Your task to perform on an android device: check battery use Image 0: 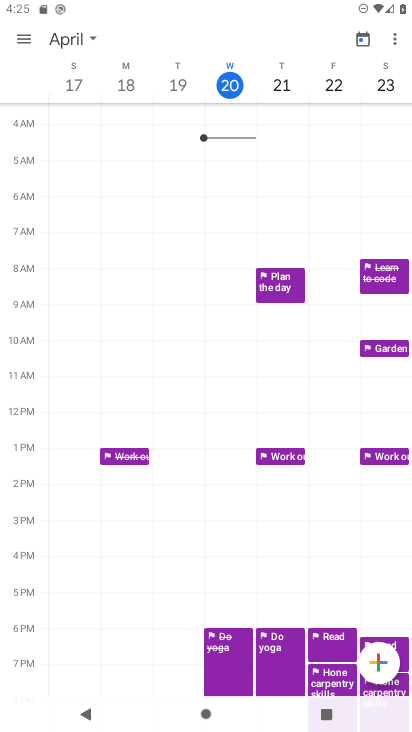
Step 0: drag from (229, 502) to (271, 238)
Your task to perform on an android device: check battery use Image 1: 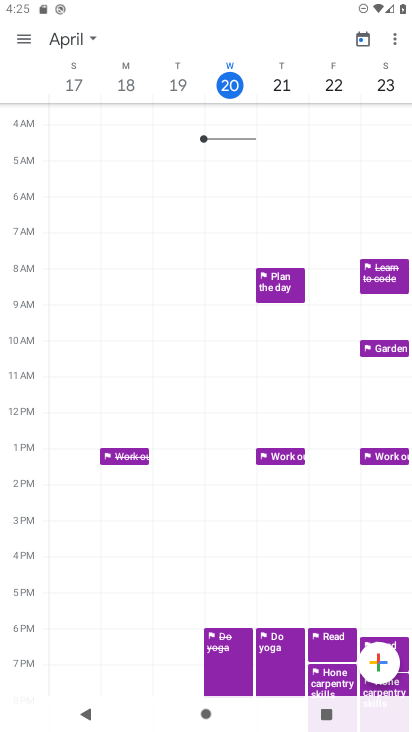
Step 1: press home button
Your task to perform on an android device: check battery use Image 2: 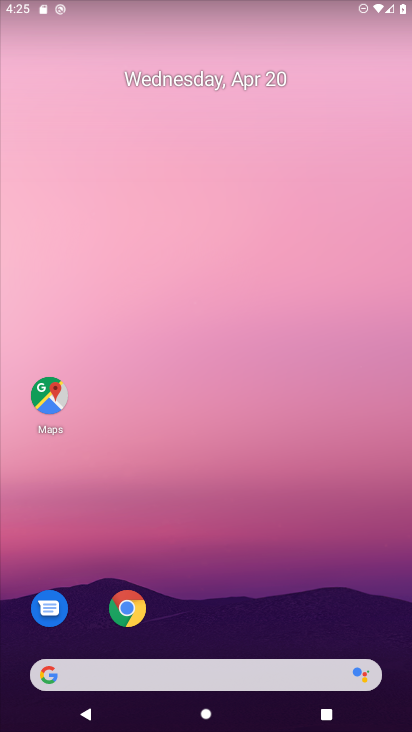
Step 2: drag from (281, 552) to (278, 65)
Your task to perform on an android device: check battery use Image 3: 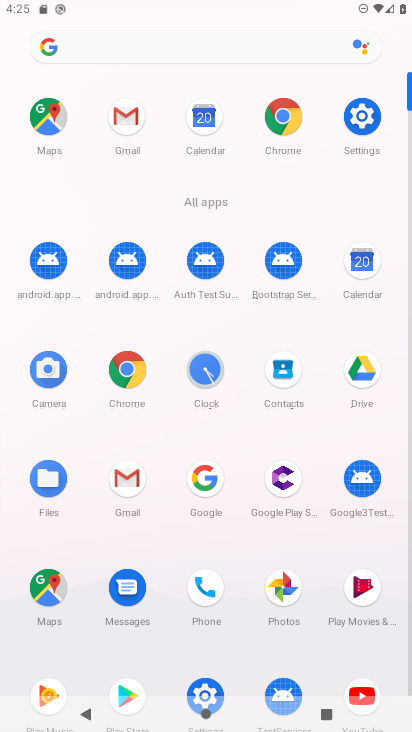
Step 3: click (353, 123)
Your task to perform on an android device: check battery use Image 4: 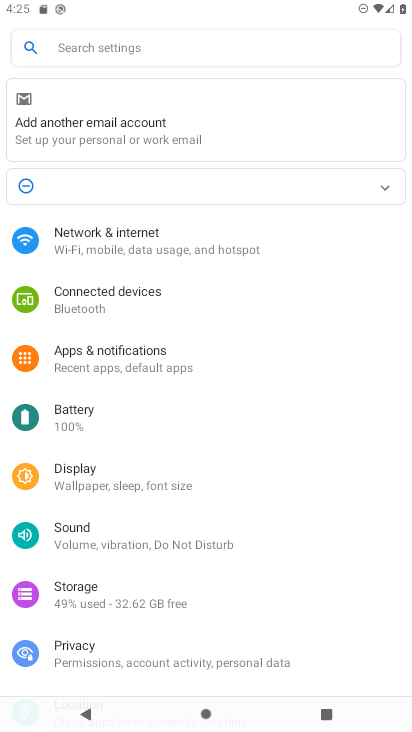
Step 4: click (241, 408)
Your task to perform on an android device: check battery use Image 5: 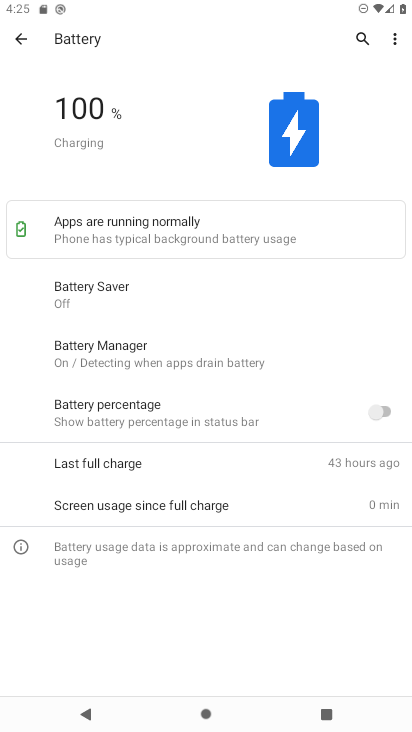
Step 5: click (399, 40)
Your task to perform on an android device: check battery use Image 6: 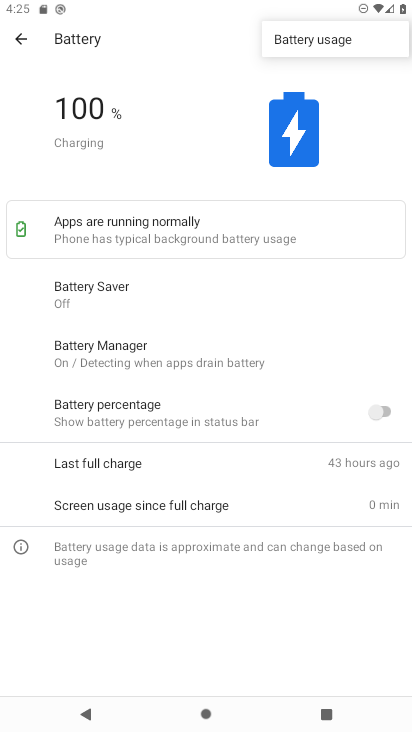
Step 6: click (360, 37)
Your task to perform on an android device: check battery use Image 7: 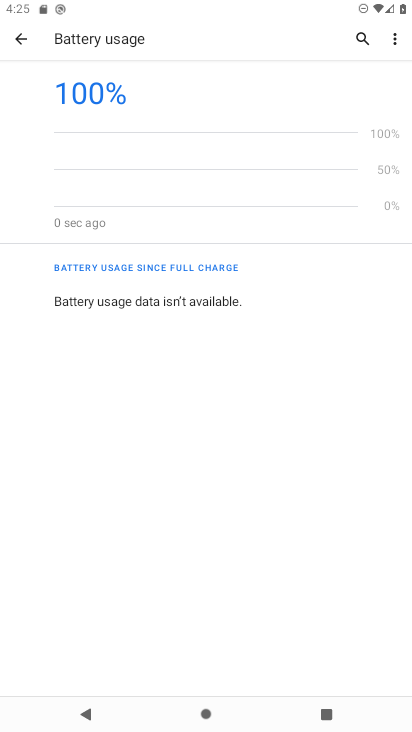
Step 7: task complete